Your task to perform on an android device: Search for Mexican restaurants on Maps Image 0: 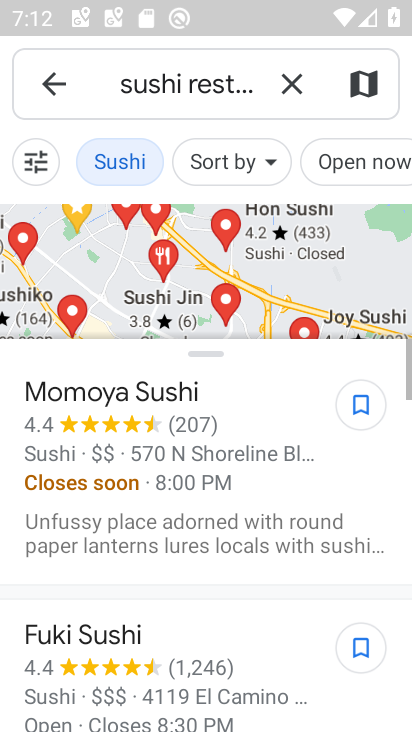
Step 0: press home button
Your task to perform on an android device: Search for Mexican restaurants on Maps Image 1: 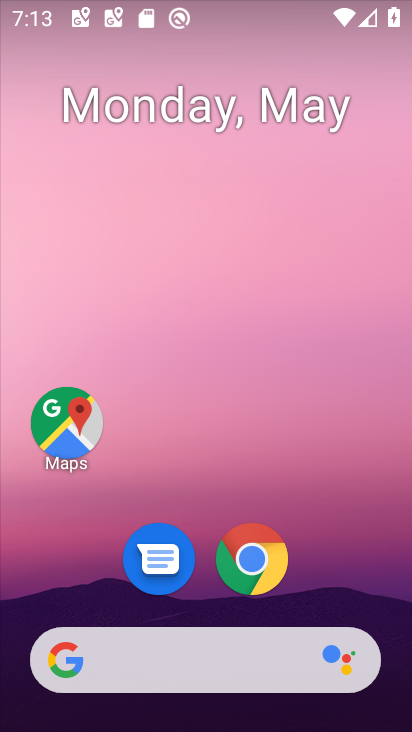
Step 1: drag from (398, 656) to (330, 3)
Your task to perform on an android device: Search for Mexican restaurants on Maps Image 2: 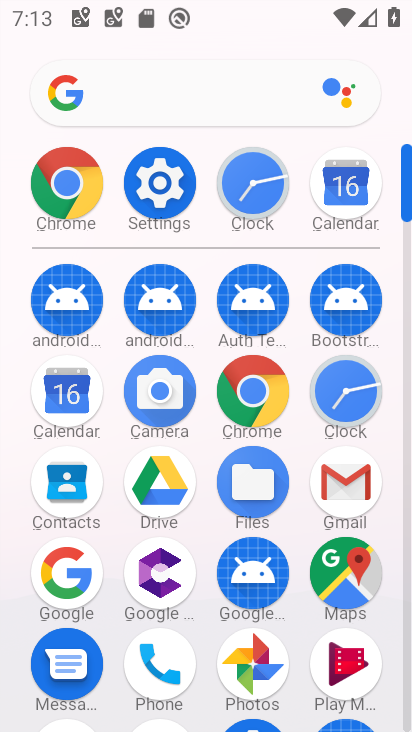
Step 2: click (336, 559)
Your task to perform on an android device: Search for Mexican restaurants on Maps Image 3: 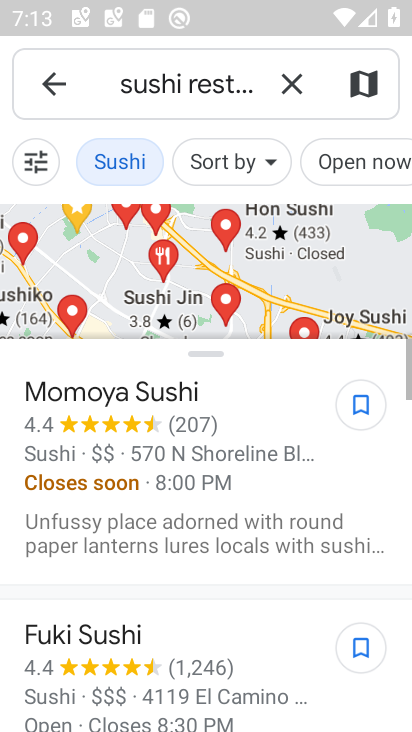
Step 3: click (306, 65)
Your task to perform on an android device: Search for Mexican restaurants on Maps Image 4: 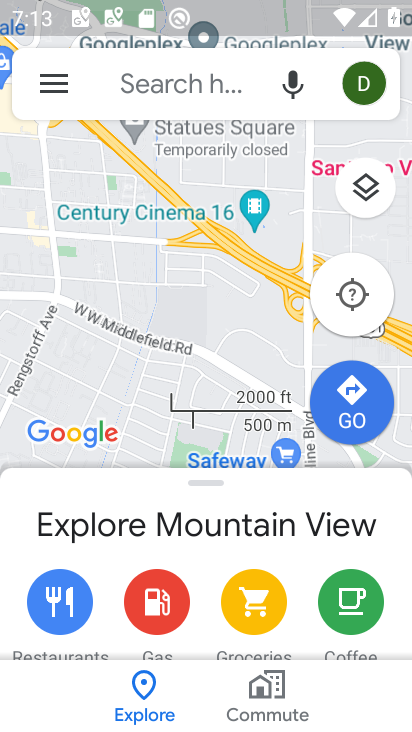
Step 4: click (127, 64)
Your task to perform on an android device: Search for Mexican restaurants on Maps Image 5: 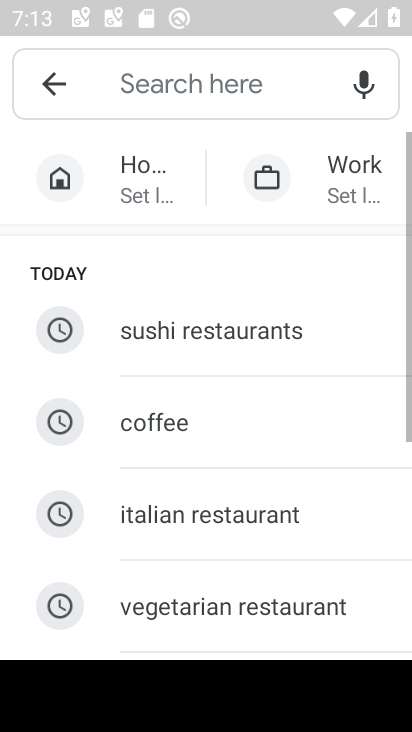
Step 5: drag from (197, 580) to (176, 207)
Your task to perform on an android device: Search for Mexican restaurants on Maps Image 6: 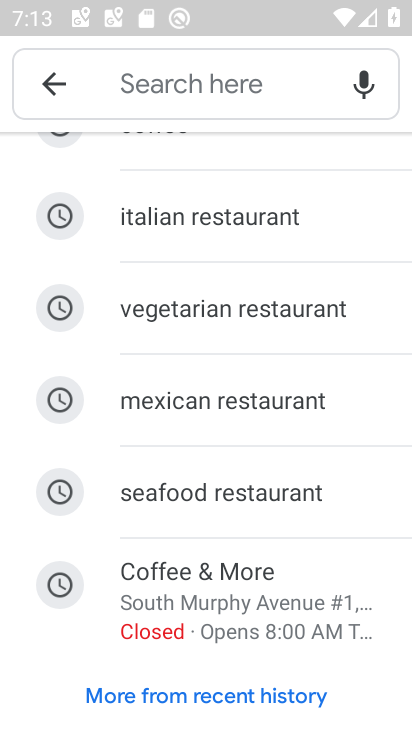
Step 6: click (211, 405)
Your task to perform on an android device: Search for Mexican restaurants on Maps Image 7: 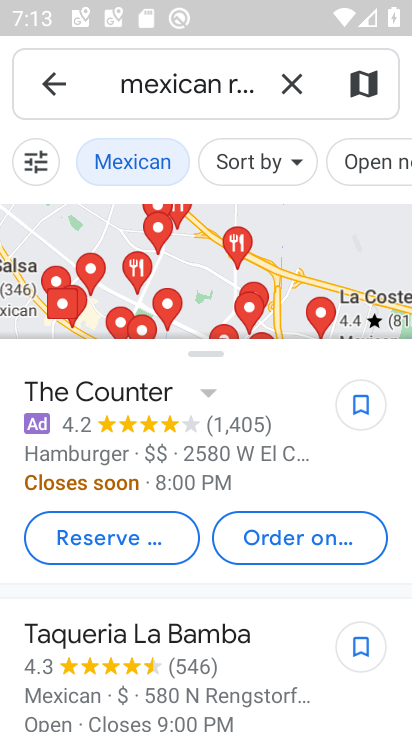
Step 7: task complete